Your task to perform on an android device: choose inbox layout in the gmail app Image 0: 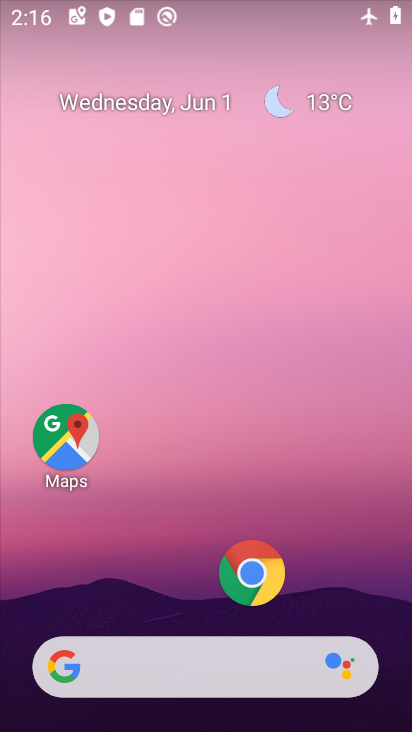
Step 0: drag from (215, 637) to (119, 6)
Your task to perform on an android device: choose inbox layout in the gmail app Image 1: 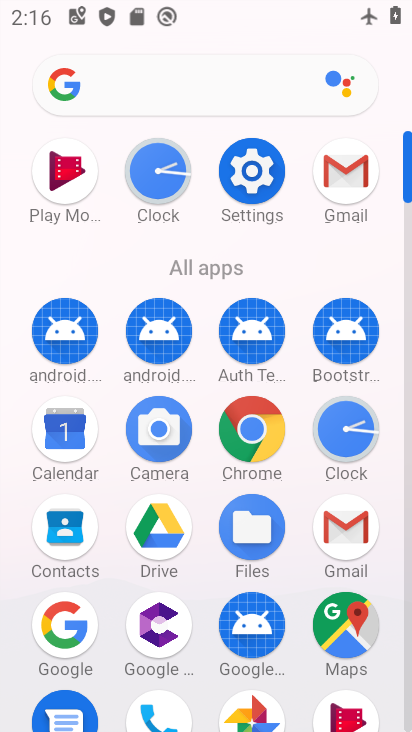
Step 1: click (350, 523)
Your task to perform on an android device: choose inbox layout in the gmail app Image 2: 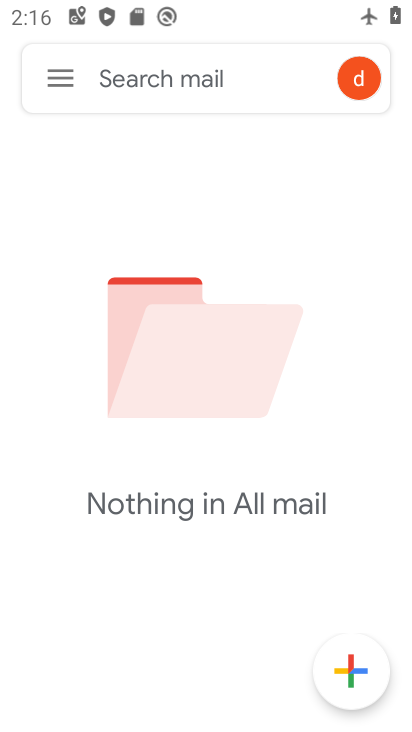
Step 2: click (45, 68)
Your task to perform on an android device: choose inbox layout in the gmail app Image 3: 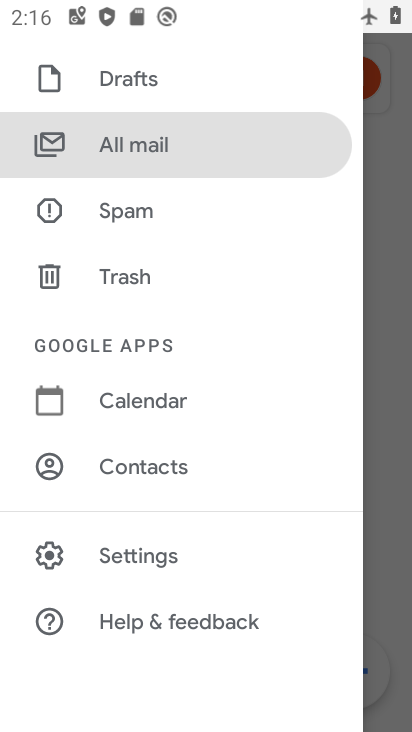
Step 3: drag from (98, 173) to (75, 655)
Your task to perform on an android device: choose inbox layout in the gmail app Image 4: 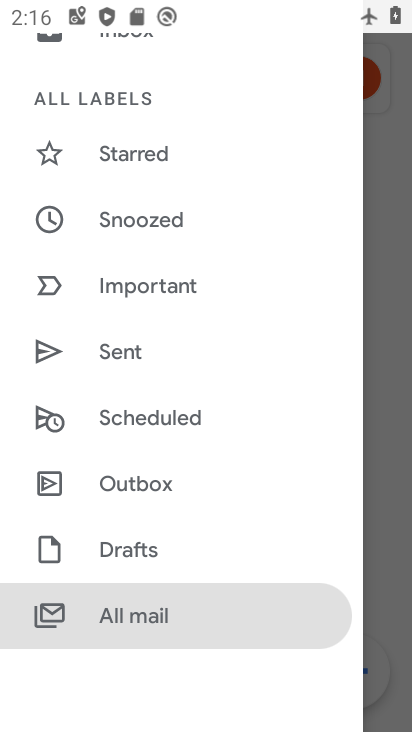
Step 4: drag from (98, 162) to (79, 568)
Your task to perform on an android device: choose inbox layout in the gmail app Image 5: 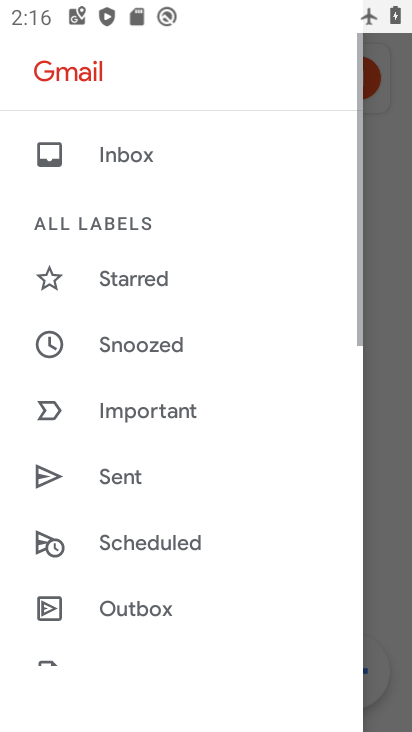
Step 5: click (79, 160)
Your task to perform on an android device: choose inbox layout in the gmail app Image 6: 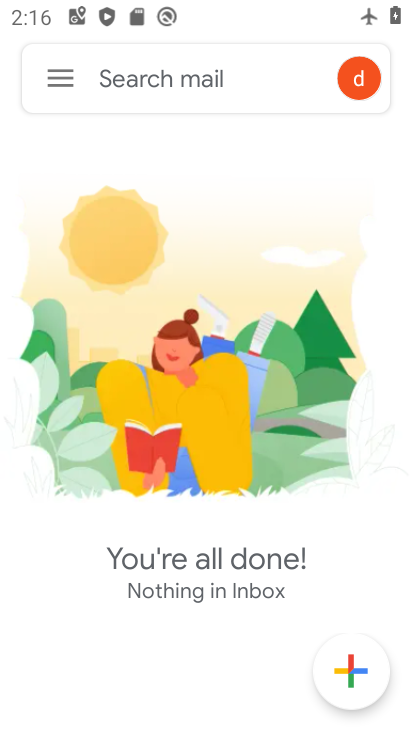
Step 6: task complete